Your task to perform on an android device: Clear the shopping cart on walmart. Search for "corsair k70" on walmart, select the first entry, and add it to the cart. Image 0: 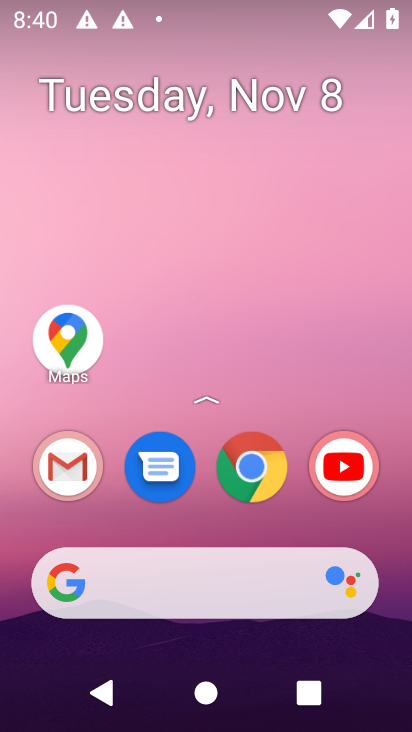
Step 0: click (163, 597)
Your task to perform on an android device: Clear the shopping cart on walmart. Search for "corsair k70" on walmart, select the first entry, and add it to the cart. Image 1: 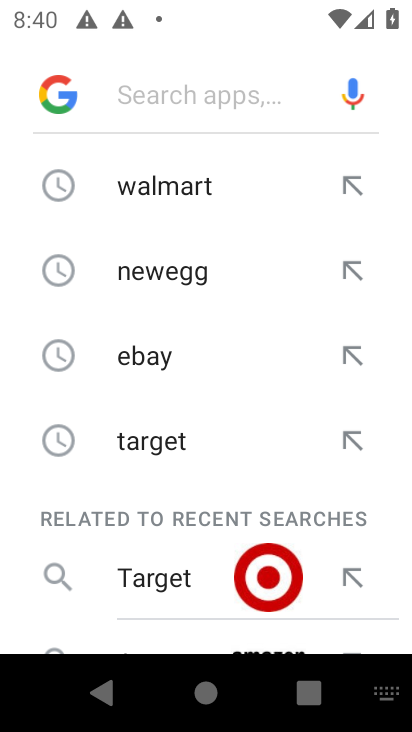
Step 1: click (218, 178)
Your task to perform on an android device: Clear the shopping cart on walmart. Search for "corsair k70" on walmart, select the first entry, and add it to the cart. Image 2: 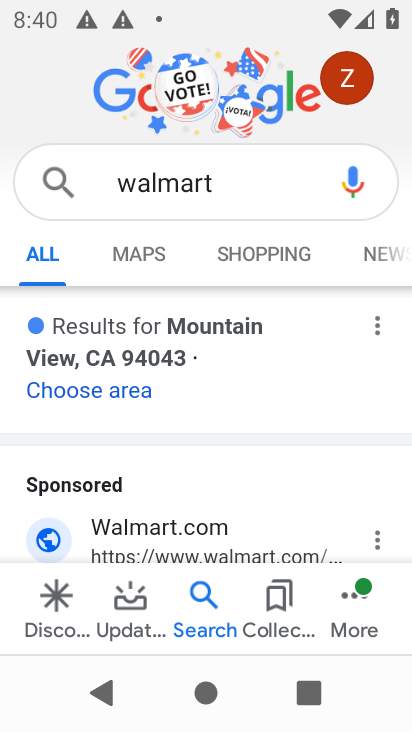
Step 2: click (176, 538)
Your task to perform on an android device: Clear the shopping cart on walmart. Search for "corsair k70" on walmart, select the first entry, and add it to the cart. Image 3: 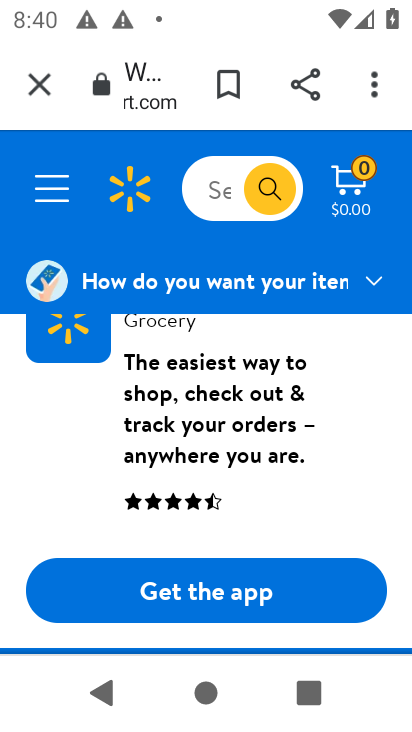
Step 3: click (209, 201)
Your task to perform on an android device: Clear the shopping cart on walmart. Search for "corsair k70" on walmart, select the first entry, and add it to the cart. Image 4: 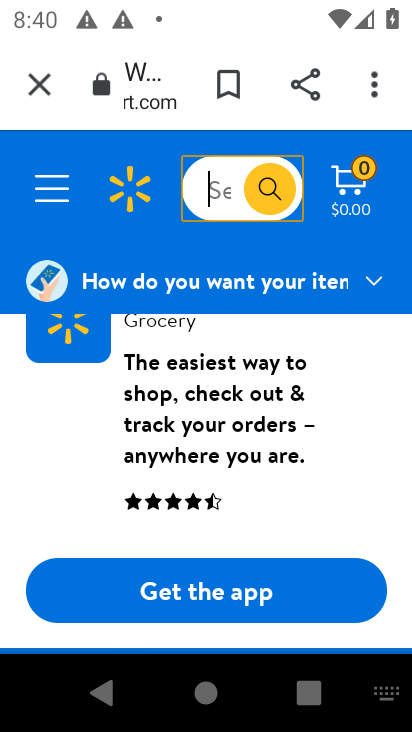
Step 4: type "corsair"
Your task to perform on an android device: Clear the shopping cart on walmart. Search for "corsair k70" on walmart, select the first entry, and add it to the cart. Image 5: 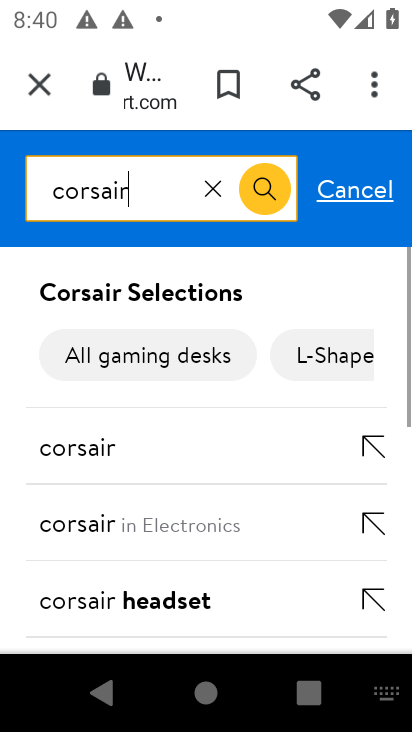
Step 5: click (186, 459)
Your task to perform on an android device: Clear the shopping cart on walmart. Search for "corsair k70" on walmart, select the first entry, and add it to the cart. Image 6: 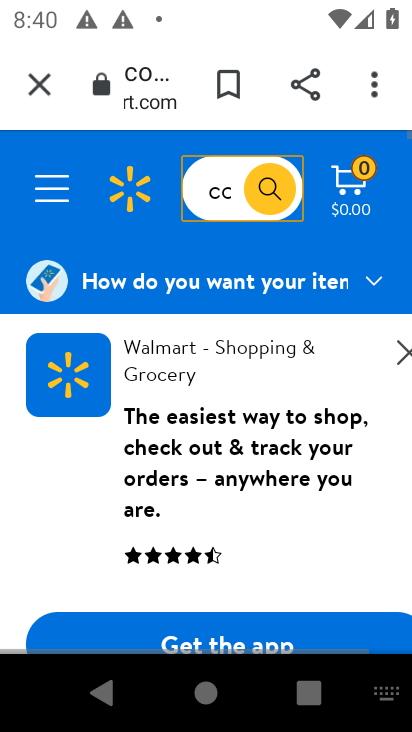
Step 6: task complete